Your task to perform on an android device: Open calendar and show me the first week of next month Image 0: 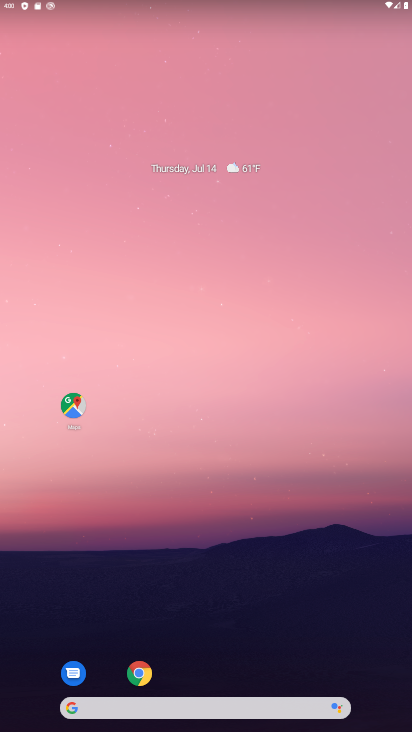
Step 0: drag from (223, 509) to (227, 241)
Your task to perform on an android device: Open calendar and show me the first week of next month Image 1: 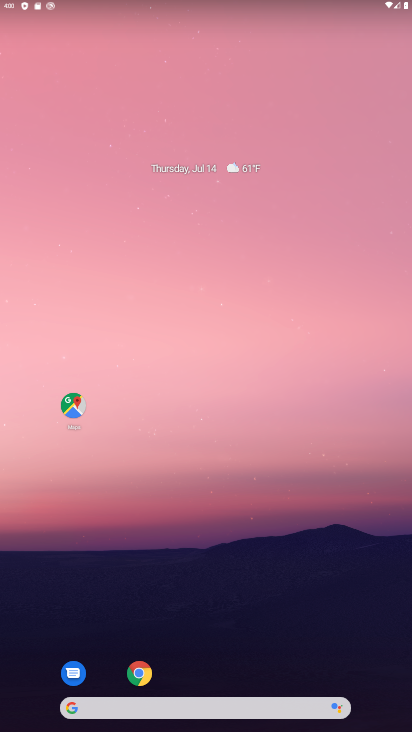
Step 1: drag from (258, 683) to (230, 79)
Your task to perform on an android device: Open calendar and show me the first week of next month Image 2: 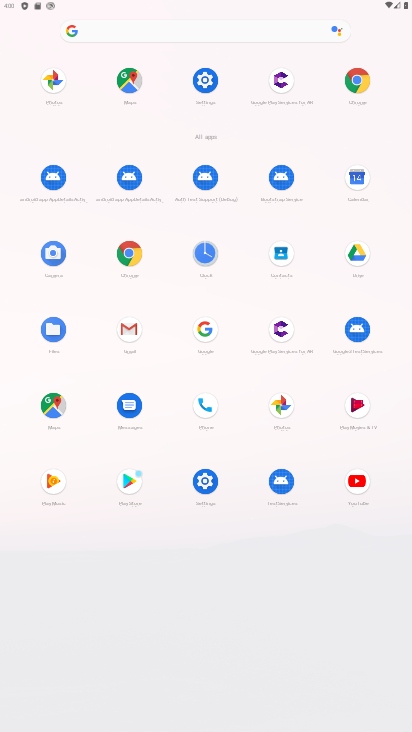
Step 2: click (348, 180)
Your task to perform on an android device: Open calendar and show me the first week of next month Image 3: 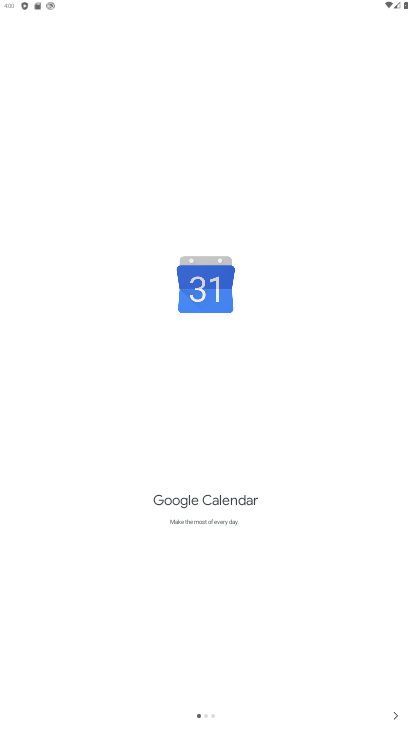
Step 3: click (389, 720)
Your task to perform on an android device: Open calendar and show me the first week of next month Image 4: 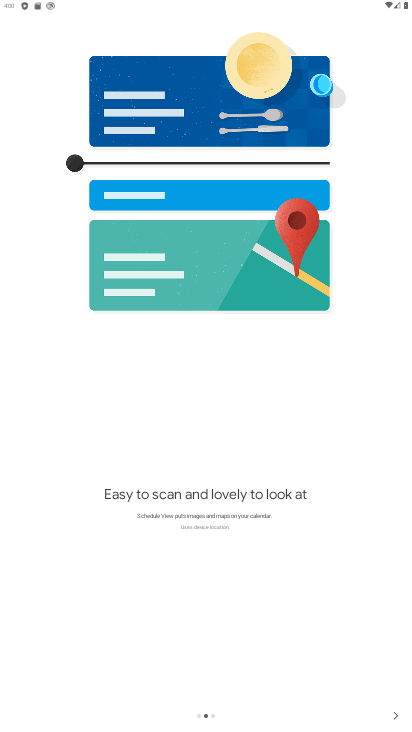
Step 4: click (388, 720)
Your task to perform on an android device: Open calendar and show me the first week of next month Image 5: 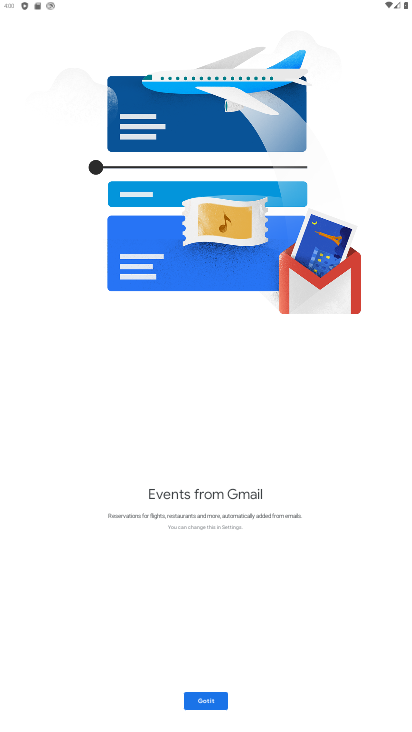
Step 5: click (224, 694)
Your task to perform on an android device: Open calendar and show me the first week of next month Image 6: 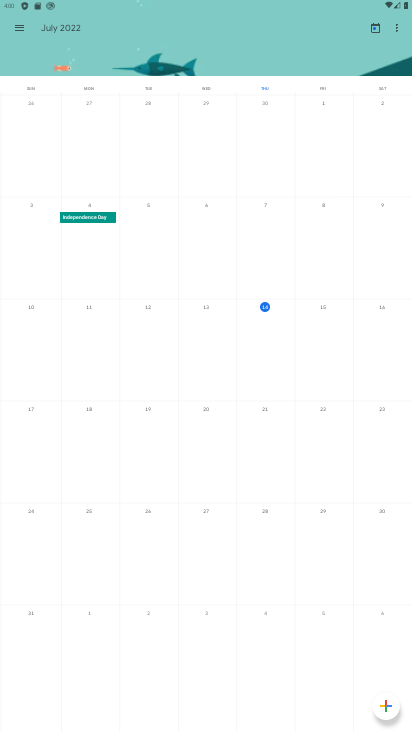
Step 6: click (15, 30)
Your task to perform on an android device: Open calendar and show me the first week of next month Image 7: 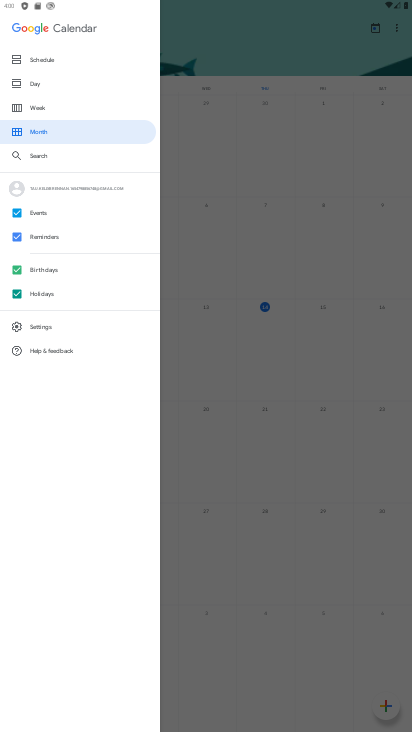
Step 7: click (40, 108)
Your task to perform on an android device: Open calendar and show me the first week of next month Image 8: 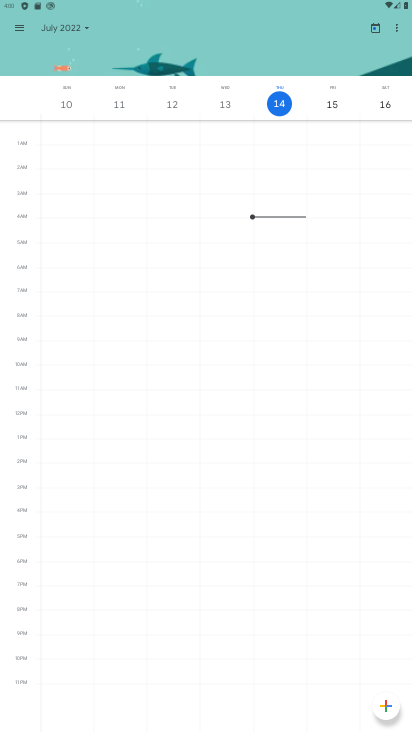
Step 8: task complete